Your task to perform on an android device: Find coffee shops on Maps Image 0: 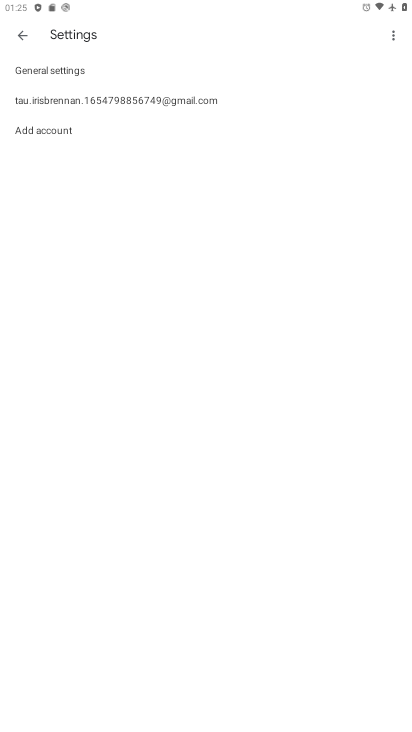
Step 0: press home button
Your task to perform on an android device: Find coffee shops on Maps Image 1: 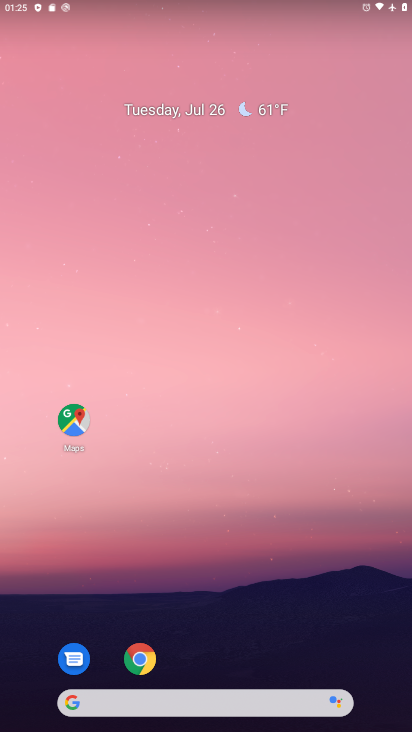
Step 1: drag from (252, 611) to (188, 80)
Your task to perform on an android device: Find coffee shops on Maps Image 2: 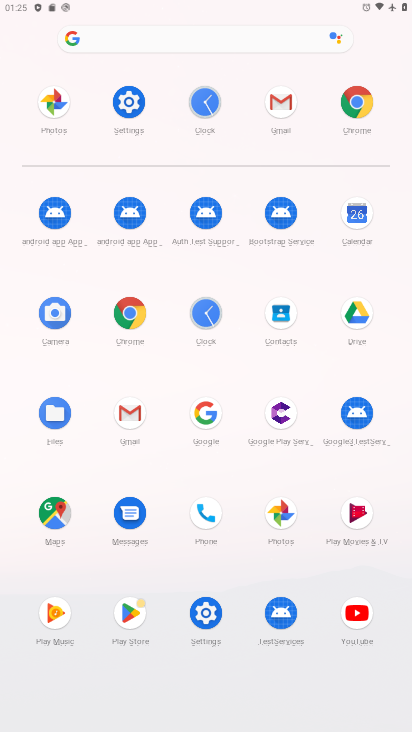
Step 2: click (57, 509)
Your task to perform on an android device: Find coffee shops on Maps Image 3: 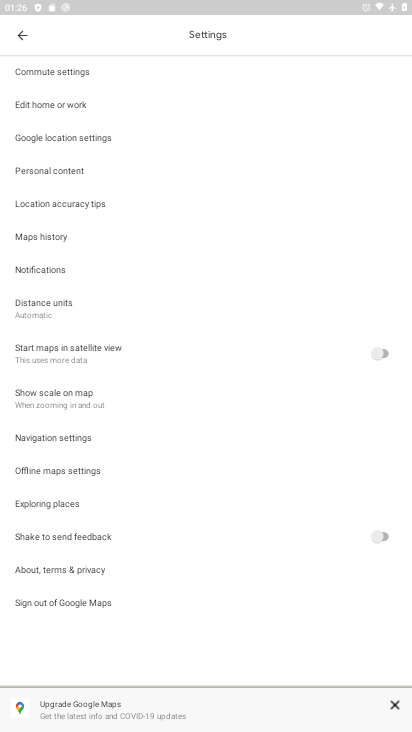
Step 3: click (28, 27)
Your task to perform on an android device: Find coffee shops on Maps Image 4: 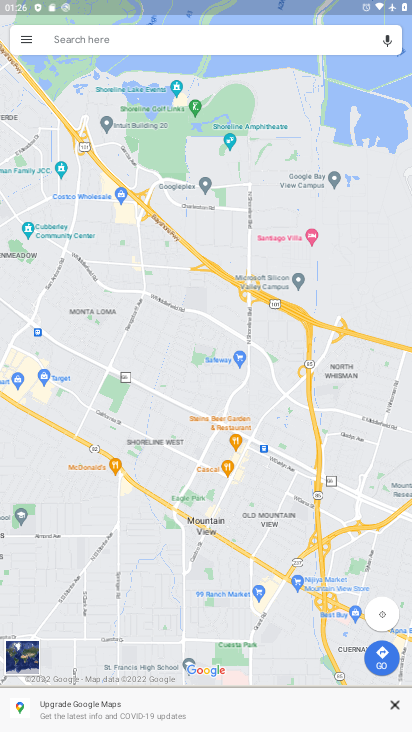
Step 4: click (141, 35)
Your task to perform on an android device: Find coffee shops on Maps Image 5: 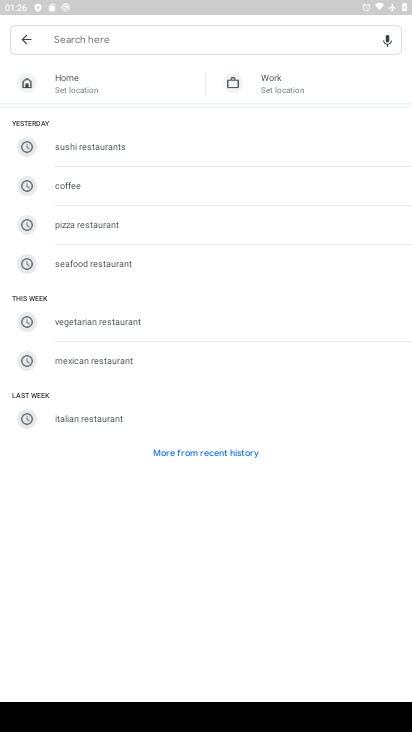
Step 5: type "coffee shops"
Your task to perform on an android device: Find coffee shops on Maps Image 6: 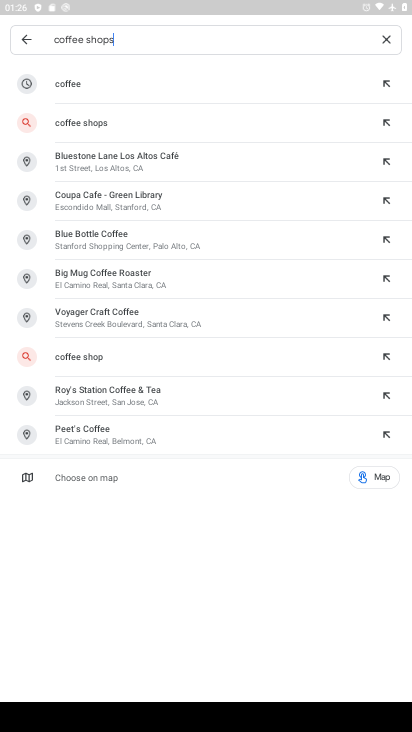
Step 6: click (95, 120)
Your task to perform on an android device: Find coffee shops on Maps Image 7: 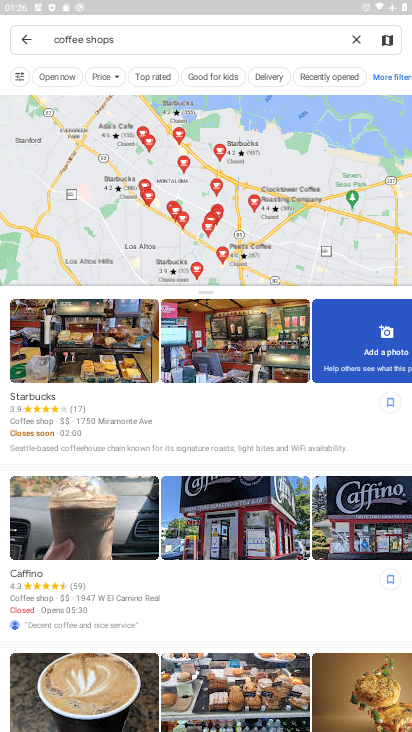
Step 7: task complete